Your task to perform on an android device: check data usage Image 0: 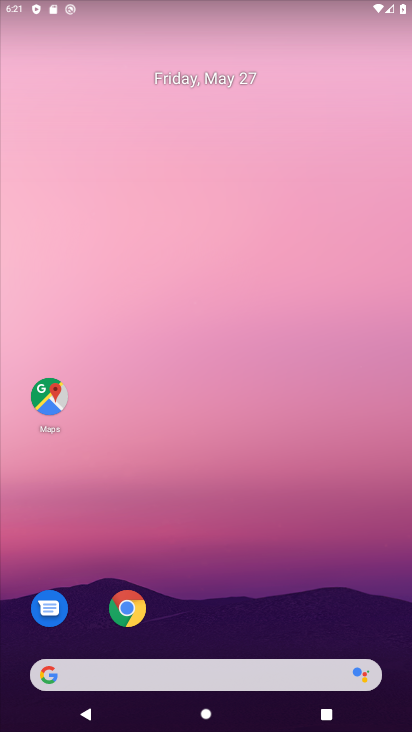
Step 0: drag from (238, 625) to (264, 209)
Your task to perform on an android device: check data usage Image 1: 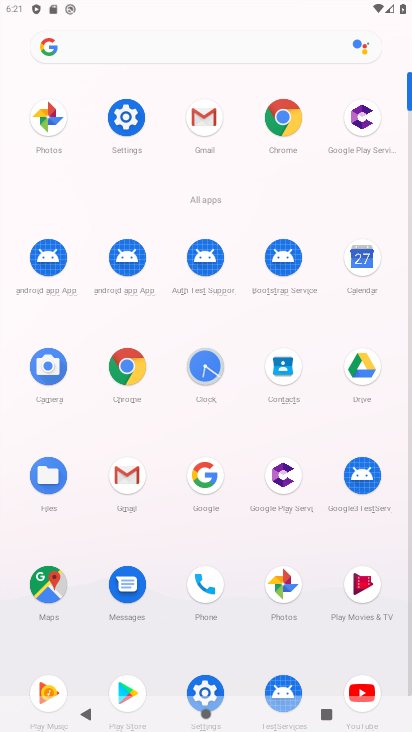
Step 1: click (123, 116)
Your task to perform on an android device: check data usage Image 2: 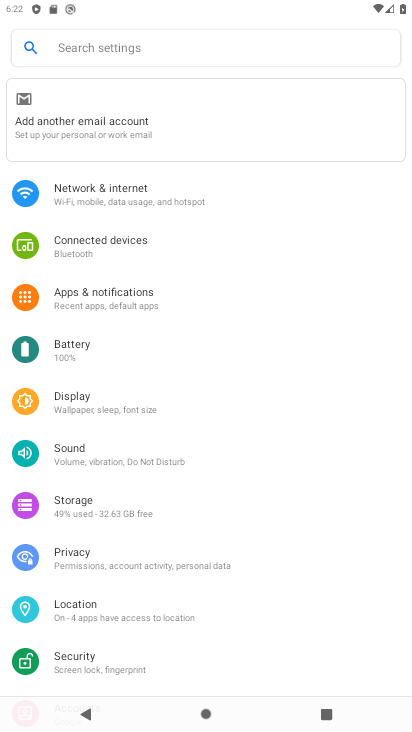
Step 2: click (135, 196)
Your task to perform on an android device: check data usage Image 3: 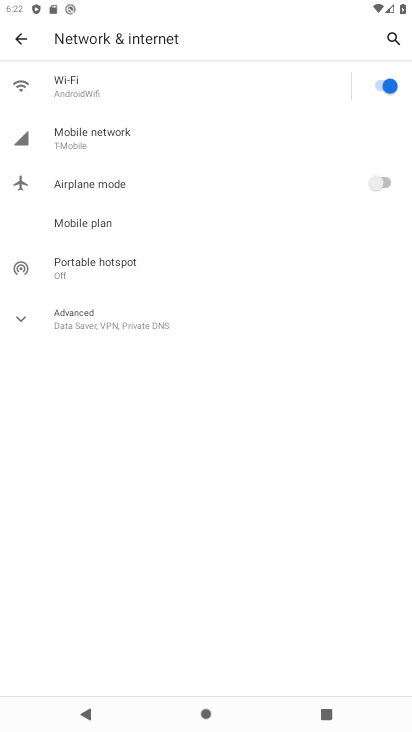
Step 3: click (32, 318)
Your task to perform on an android device: check data usage Image 4: 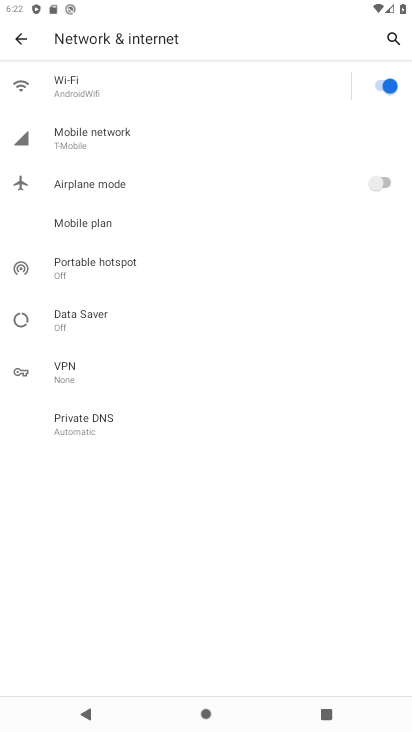
Step 4: click (103, 136)
Your task to perform on an android device: check data usage Image 5: 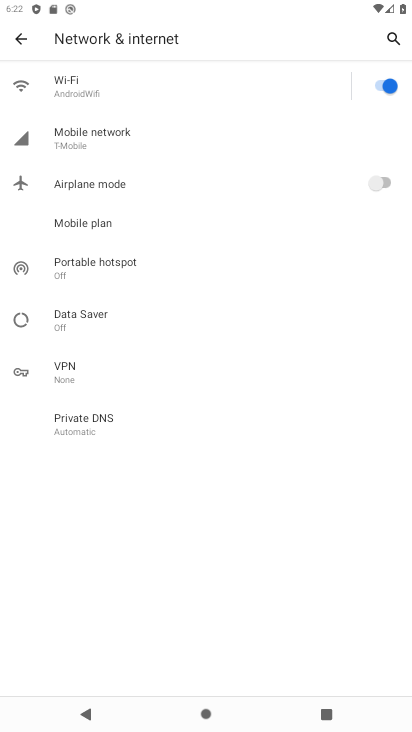
Step 5: click (103, 136)
Your task to perform on an android device: check data usage Image 6: 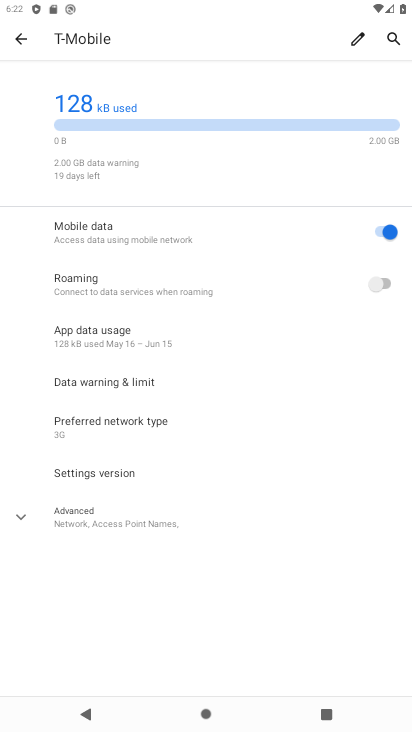
Step 6: click (130, 340)
Your task to perform on an android device: check data usage Image 7: 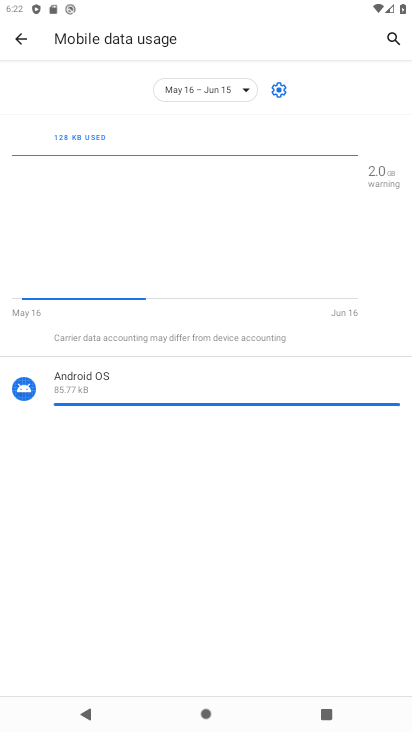
Step 7: task complete